Your task to perform on an android device: Search for sushi restaurants on Maps Image 0: 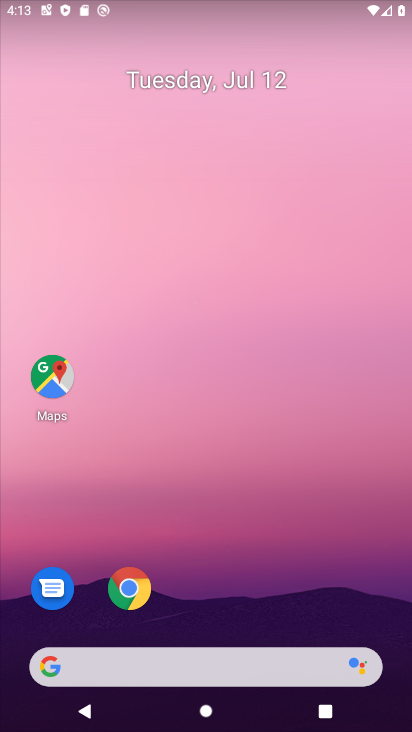
Step 0: click (65, 392)
Your task to perform on an android device: Search for sushi restaurants on Maps Image 1: 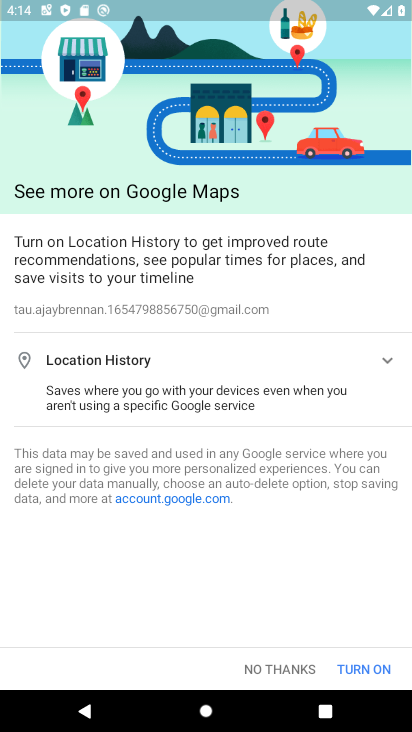
Step 1: click (378, 659)
Your task to perform on an android device: Search for sushi restaurants on Maps Image 2: 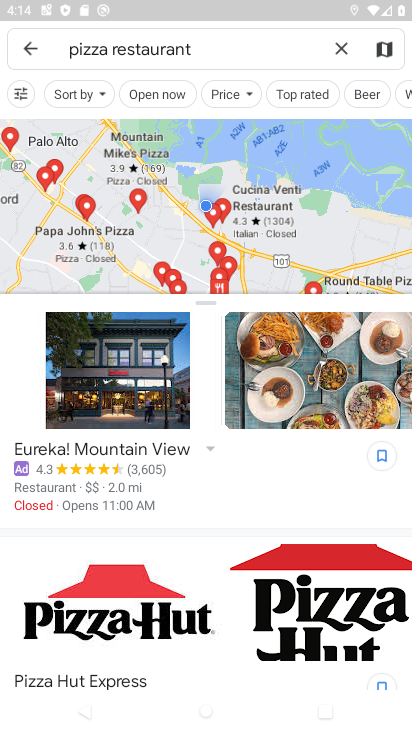
Step 2: task complete